Your task to perform on an android device: turn pop-ups off in chrome Image 0: 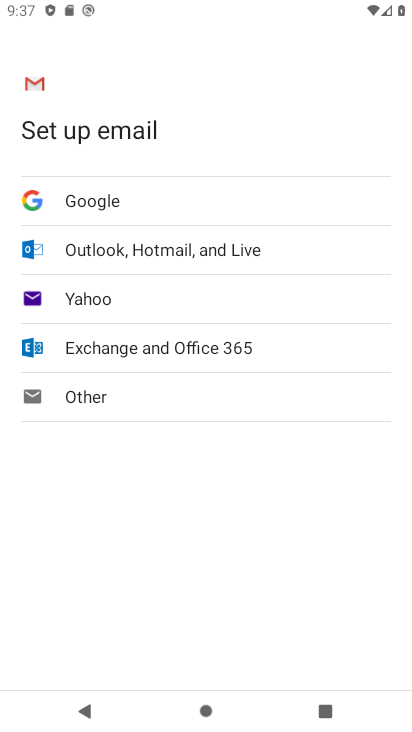
Step 0: press back button
Your task to perform on an android device: turn pop-ups off in chrome Image 1: 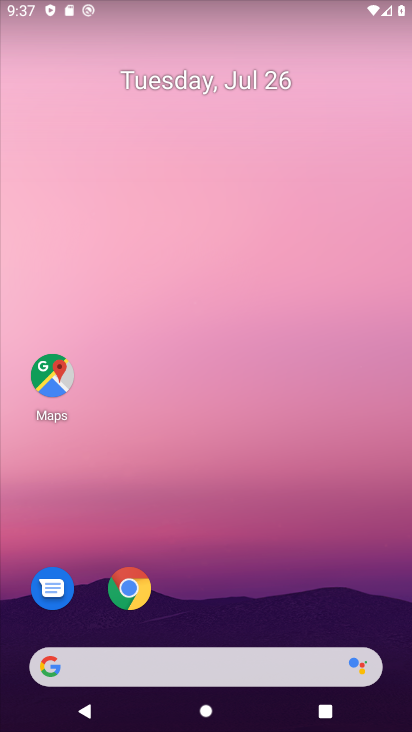
Step 1: click (118, 589)
Your task to perform on an android device: turn pop-ups off in chrome Image 2: 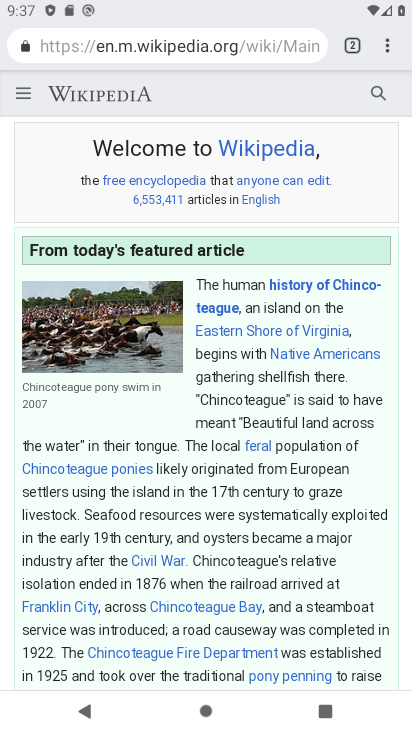
Step 2: drag from (388, 42) to (254, 547)
Your task to perform on an android device: turn pop-ups off in chrome Image 3: 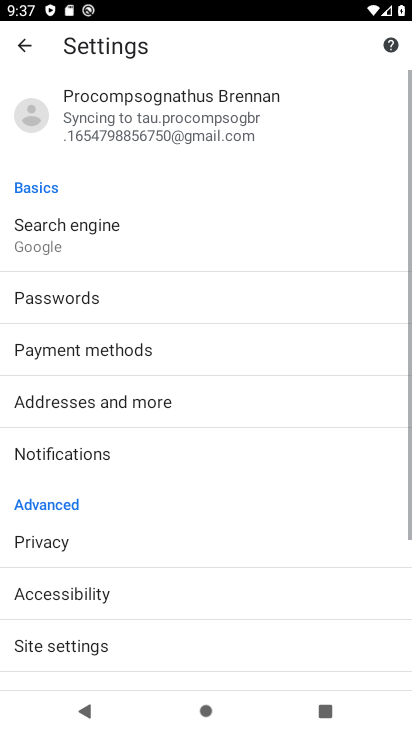
Step 3: drag from (156, 578) to (241, 270)
Your task to perform on an android device: turn pop-ups off in chrome Image 4: 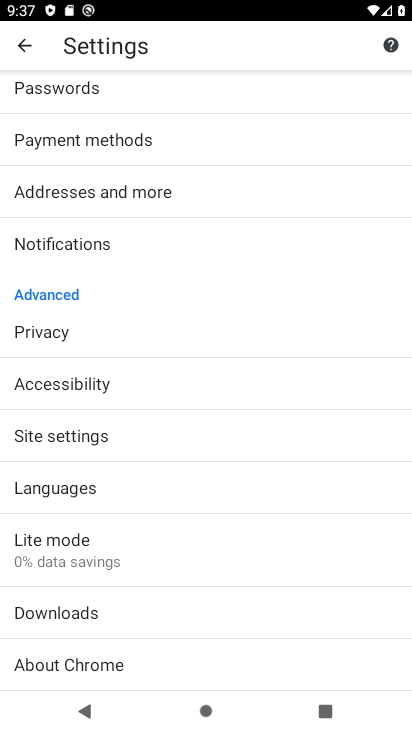
Step 4: click (147, 436)
Your task to perform on an android device: turn pop-ups off in chrome Image 5: 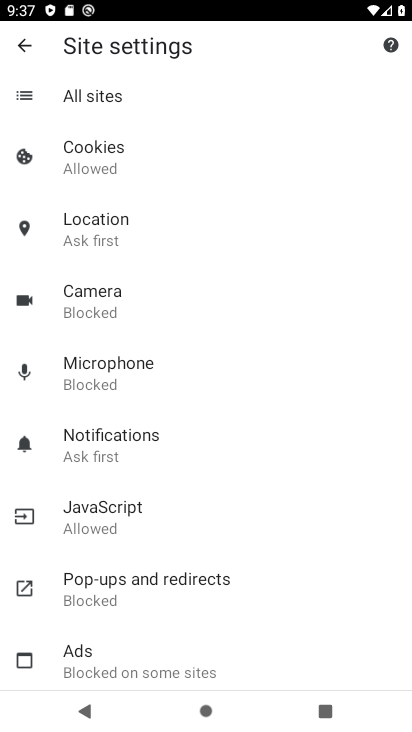
Step 5: click (178, 594)
Your task to perform on an android device: turn pop-ups off in chrome Image 6: 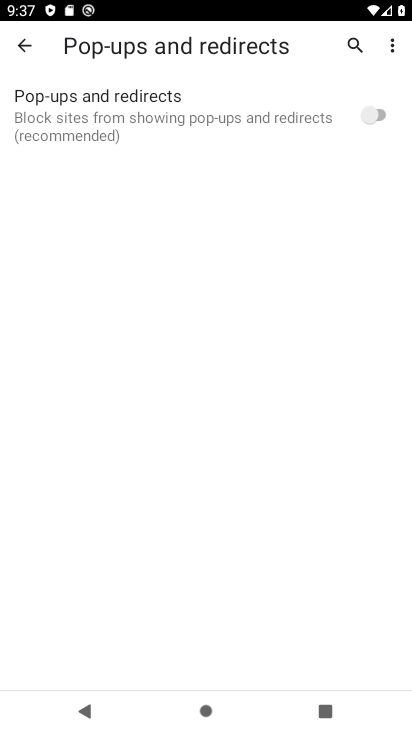
Step 6: task complete